Your task to perform on an android device: Open the Play Movies app and select the watchlist tab. Image 0: 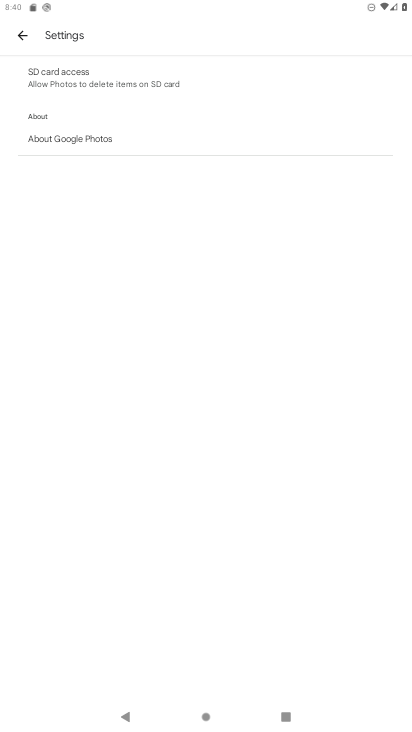
Step 0: press home button
Your task to perform on an android device: Open the Play Movies app and select the watchlist tab. Image 1: 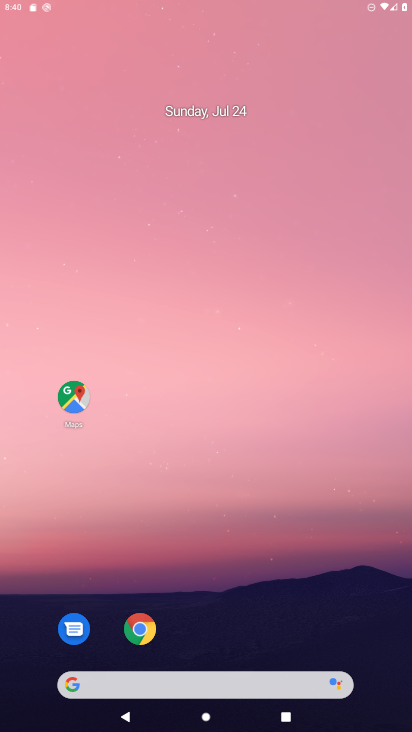
Step 1: drag from (374, 676) to (272, 14)
Your task to perform on an android device: Open the Play Movies app and select the watchlist tab. Image 2: 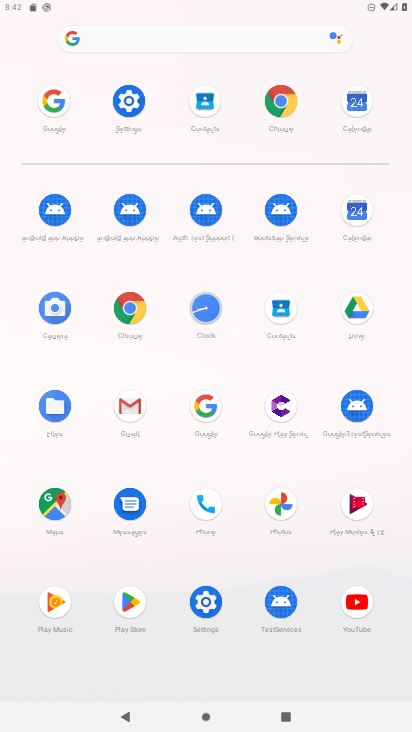
Step 2: click (345, 498)
Your task to perform on an android device: Open the Play Movies app and select the watchlist tab. Image 3: 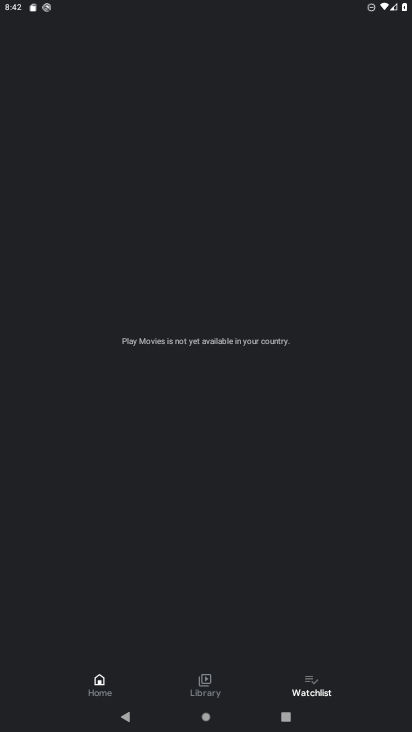
Step 3: click (300, 685)
Your task to perform on an android device: Open the Play Movies app and select the watchlist tab. Image 4: 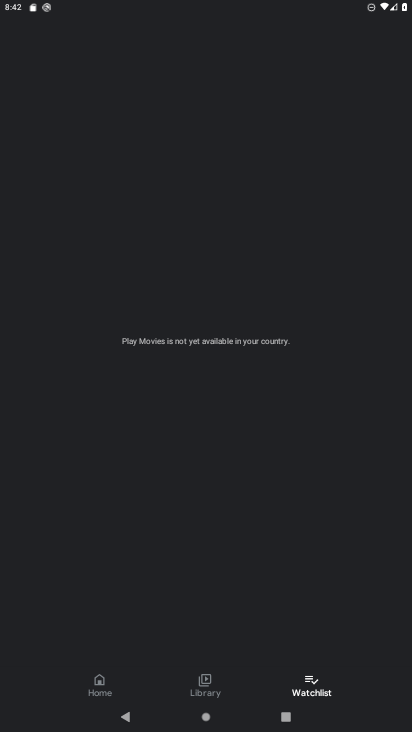
Step 4: task complete